Your task to perform on an android device: Go to ESPN.com Image 0: 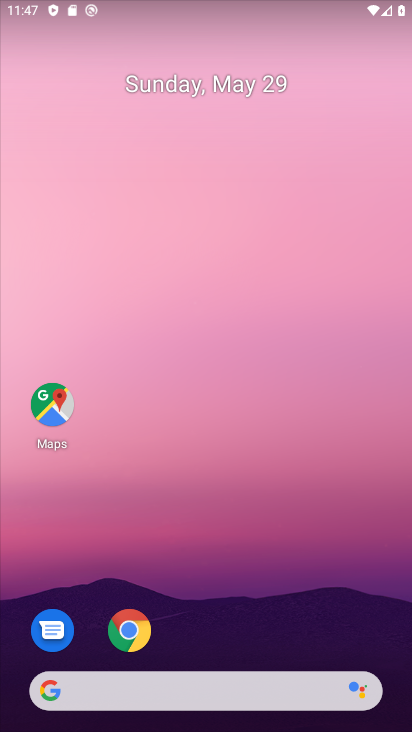
Step 0: drag from (297, 706) to (211, 267)
Your task to perform on an android device: Go to ESPN.com Image 1: 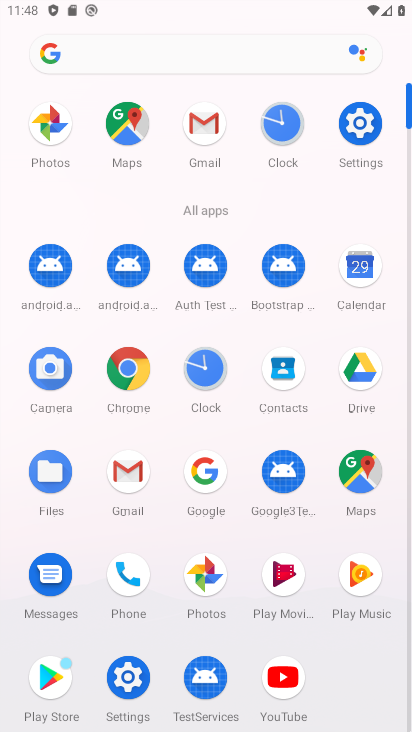
Step 1: click (126, 370)
Your task to perform on an android device: Go to ESPN.com Image 2: 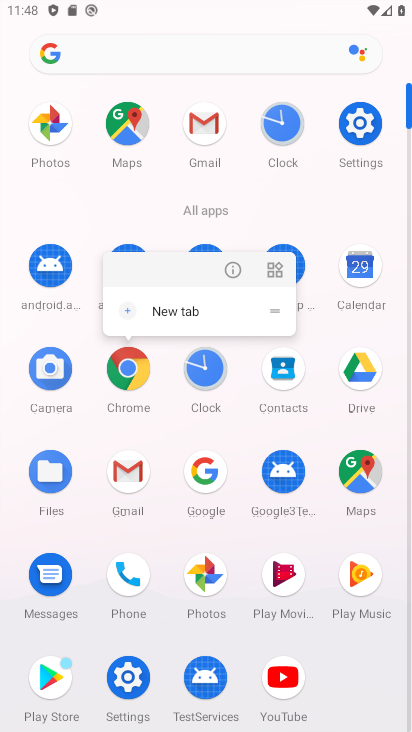
Step 2: click (129, 362)
Your task to perform on an android device: Go to ESPN.com Image 3: 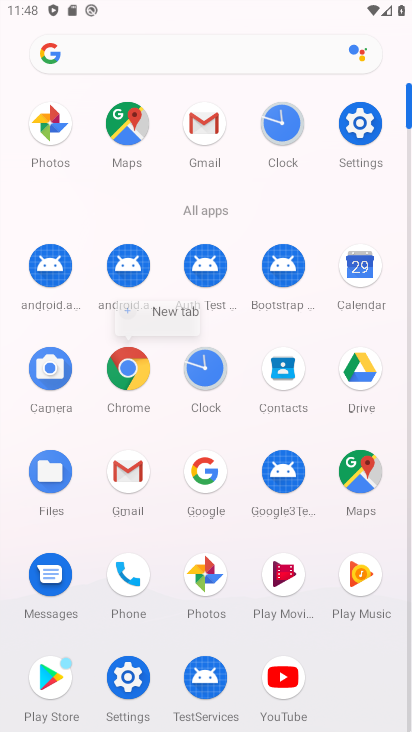
Step 3: click (129, 362)
Your task to perform on an android device: Go to ESPN.com Image 4: 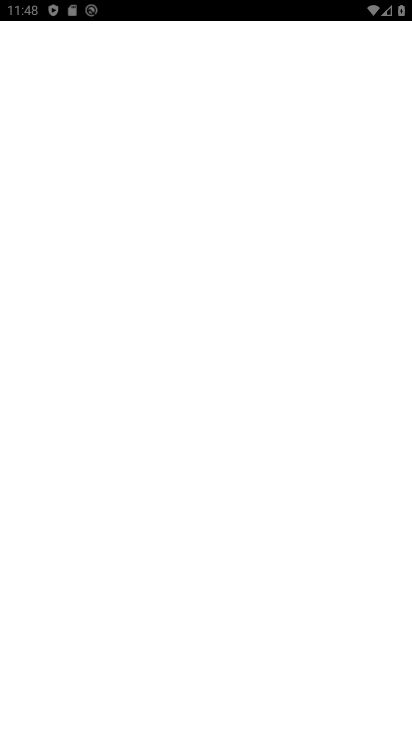
Step 4: click (128, 362)
Your task to perform on an android device: Go to ESPN.com Image 5: 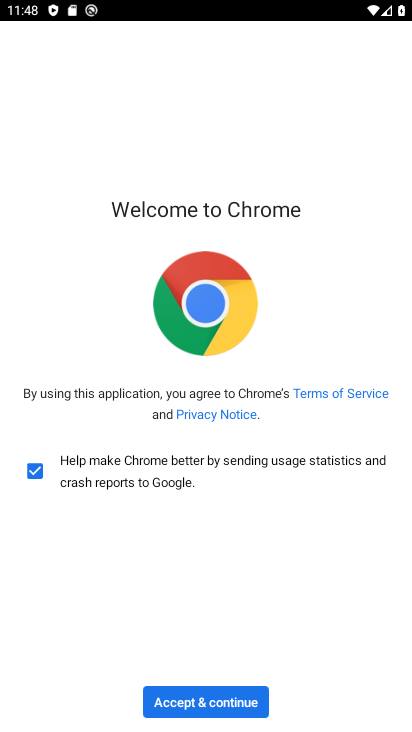
Step 5: click (192, 697)
Your task to perform on an android device: Go to ESPN.com Image 6: 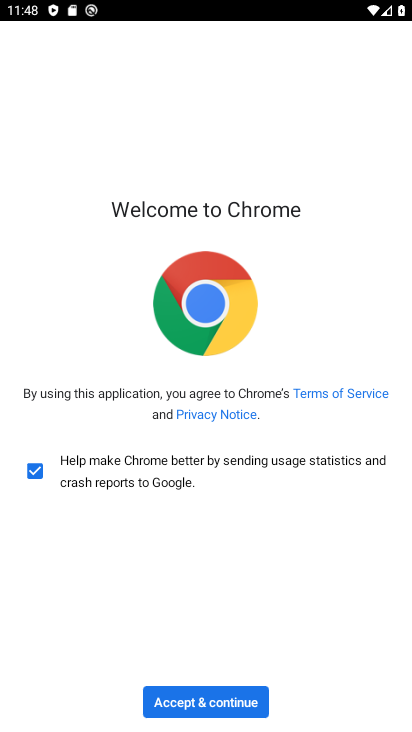
Step 6: click (193, 698)
Your task to perform on an android device: Go to ESPN.com Image 7: 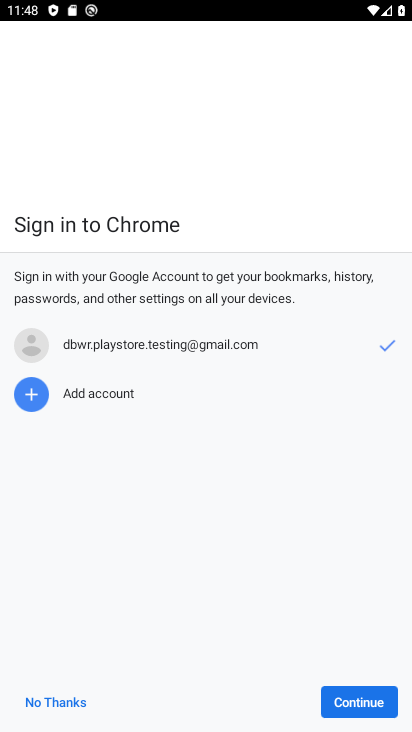
Step 7: click (197, 694)
Your task to perform on an android device: Go to ESPN.com Image 8: 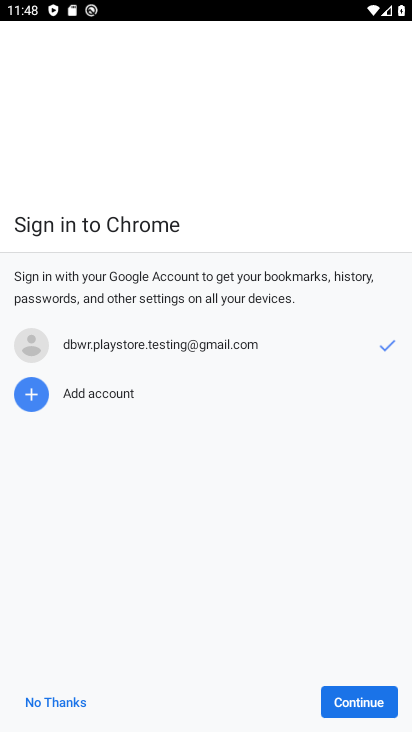
Step 8: click (197, 694)
Your task to perform on an android device: Go to ESPN.com Image 9: 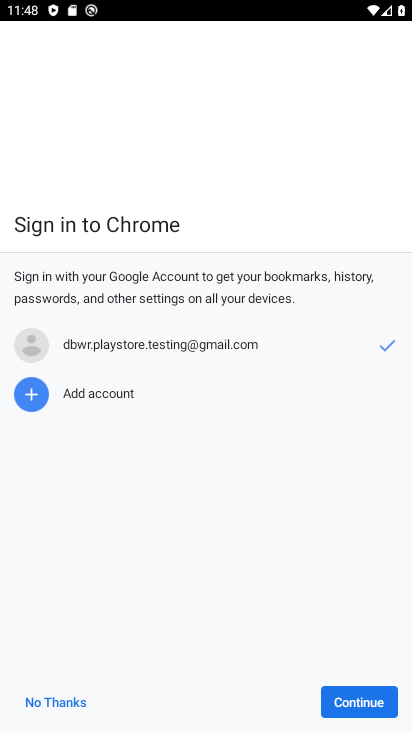
Step 9: click (369, 707)
Your task to perform on an android device: Go to ESPN.com Image 10: 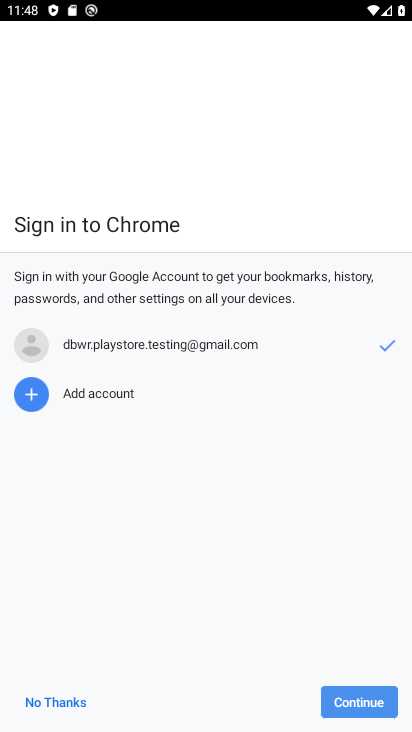
Step 10: click (367, 704)
Your task to perform on an android device: Go to ESPN.com Image 11: 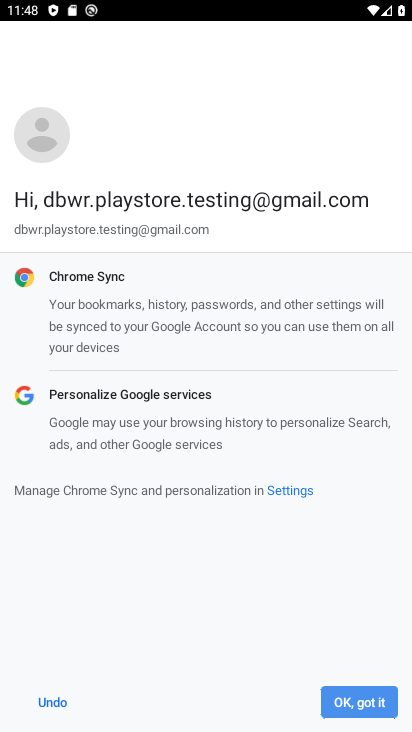
Step 11: click (369, 701)
Your task to perform on an android device: Go to ESPN.com Image 12: 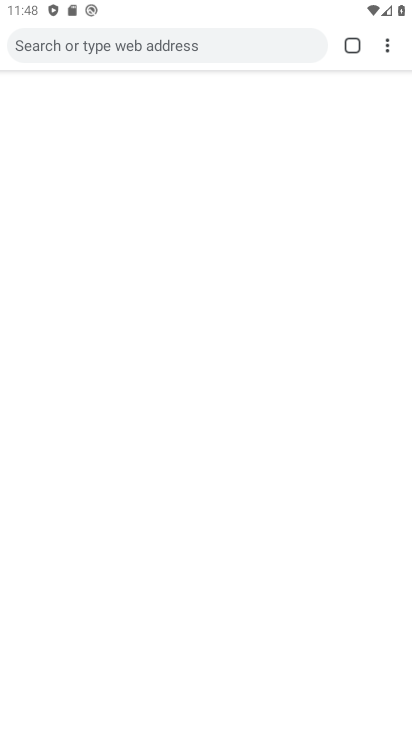
Step 12: click (370, 698)
Your task to perform on an android device: Go to ESPN.com Image 13: 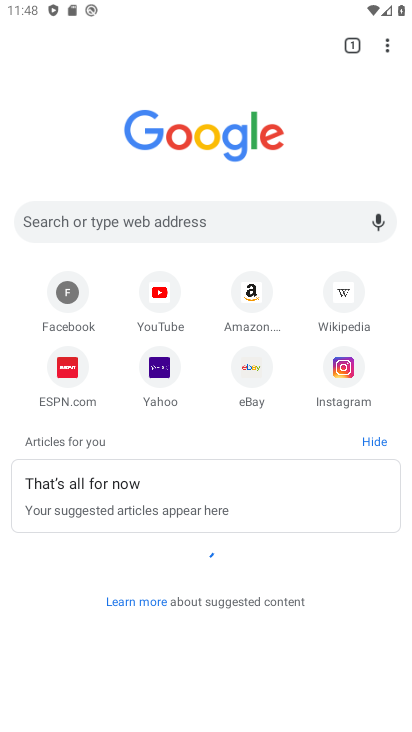
Step 13: click (386, 49)
Your task to perform on an android device: Go to ESPN.com Image 14: 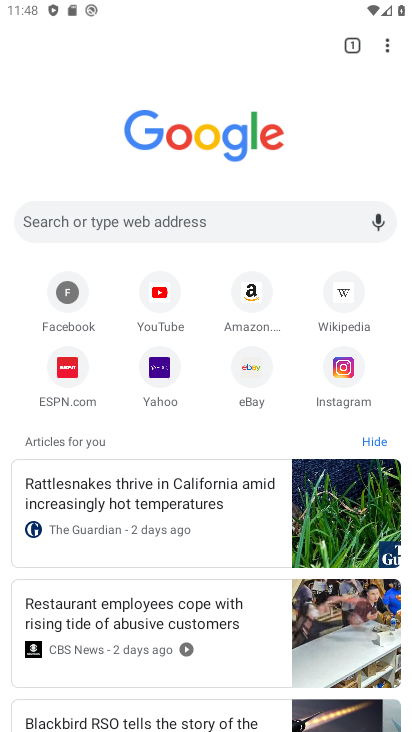
Step 14: click (74, 375)
Your task to perform on an android device: Go to ESPN.com Image 15: 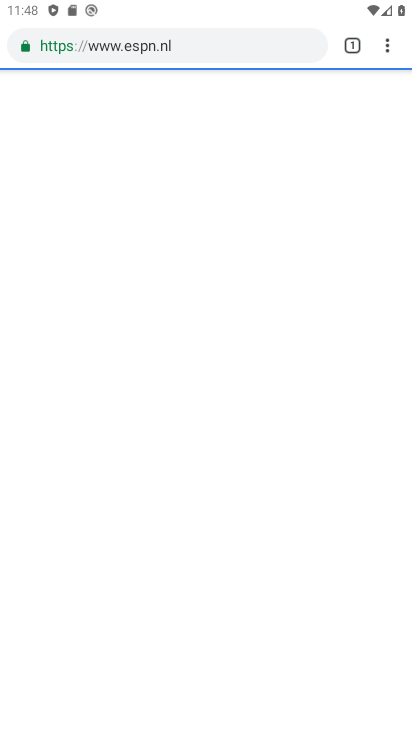
Step 15: task complete